Your task to perform on an android device: star an email in the gmail app Image 0: 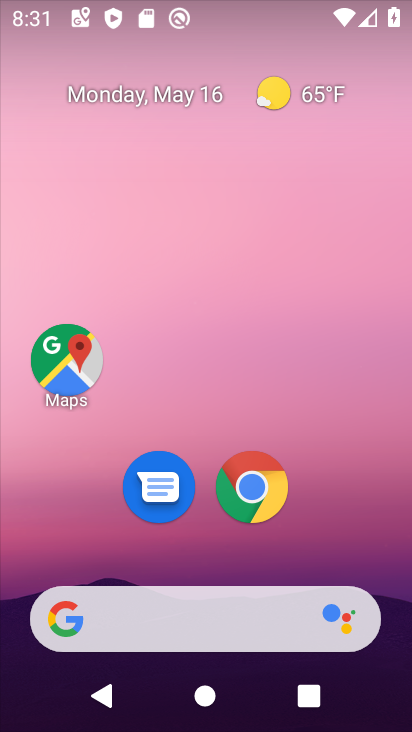
Step 0: drag from (356, 554) to (355, 130)
Your task to perform on an android device: star an email in the gmail app Image 1: 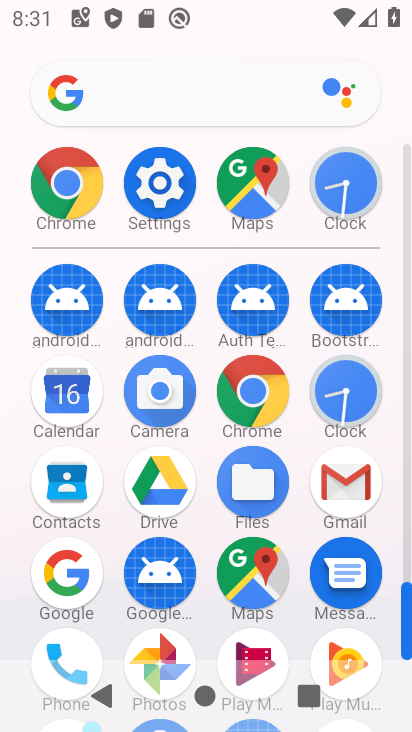
Step 1: click (361, 488)
Your task to perform on an android device: star an email in the gmail app Image 2: 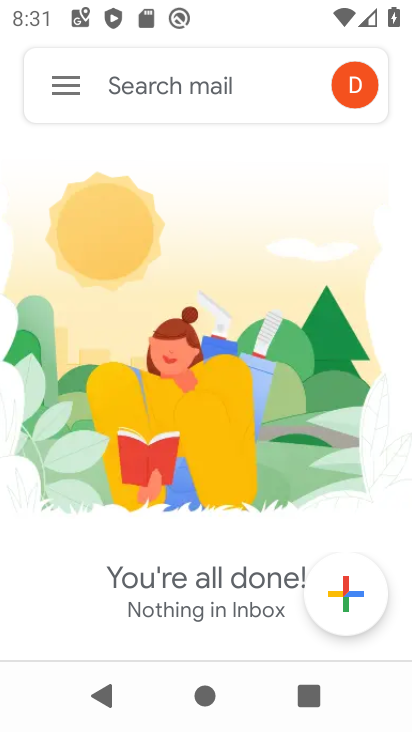
Step 2: click (45, 81)
Your task to perform on an android device: star an email in the gmail app Image 3: 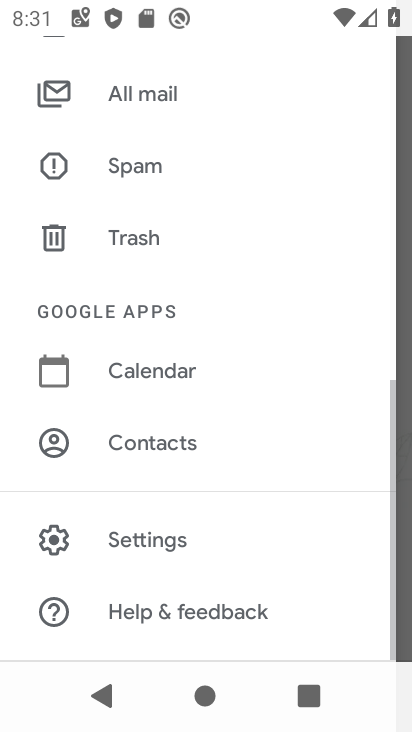
Step 3: drag from (268, 501) to (301, 327)
Your task to perform on an android device: star an email in the gmail app Image 4: 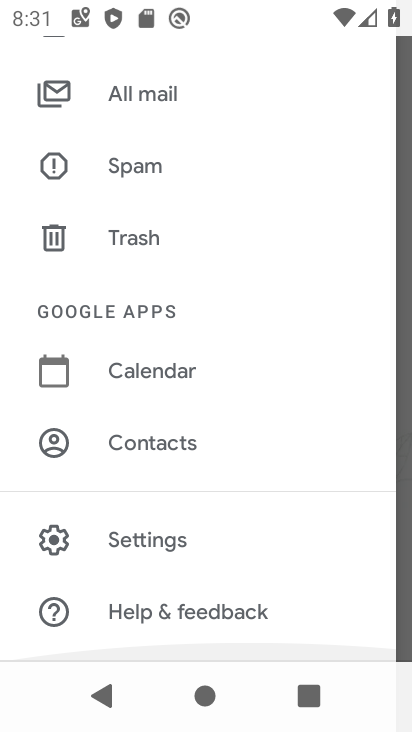
Step 4: drag from (312, 273) to (311, 409)
Your task to perform on an android device: star an email in the gmail app Image 5: 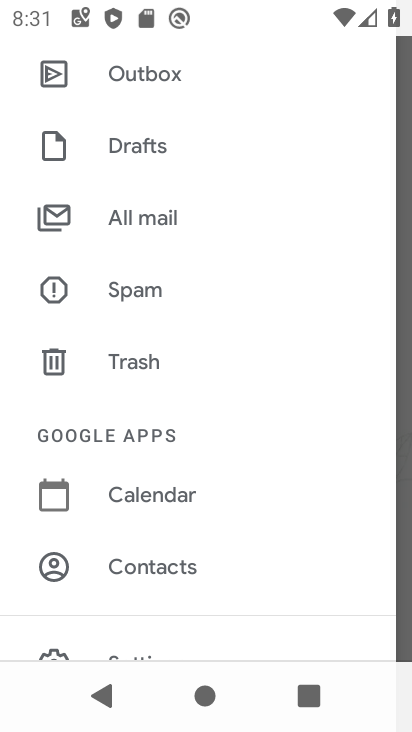
Step 5: drag from (315, 295) to (294, 457)
Your task to perform on an android device: star an email in the gmail app Image 6: 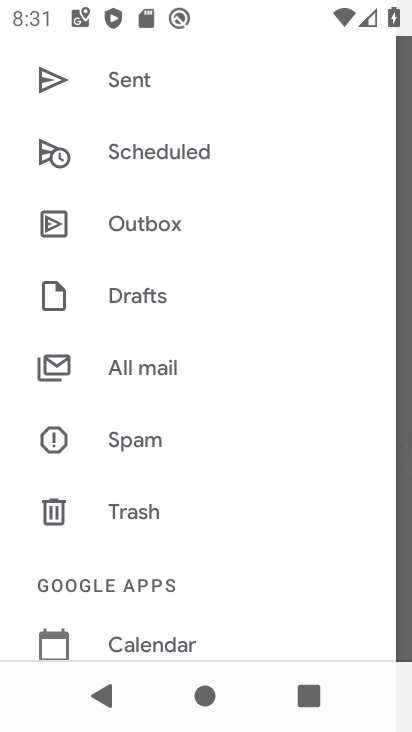
Step 6: drag from (285, 269) to (263, 402)
Your task to perform on an android device: star an email in the gmail app Image 7: 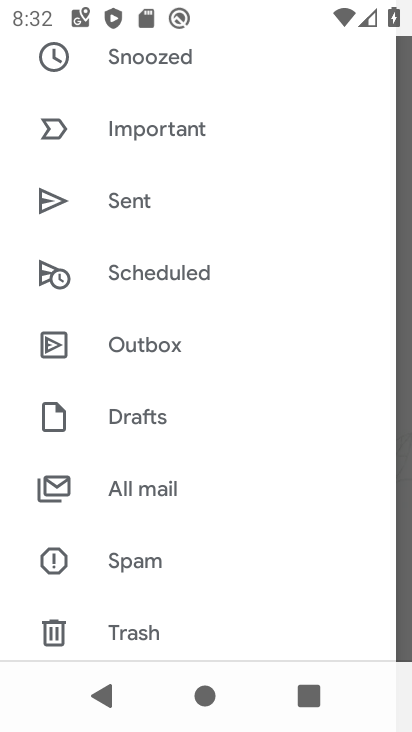
Step 7: drag from (265, 225) to (246, 361)
Your task to perform on an android device: star an email in the gmail app Image 8: 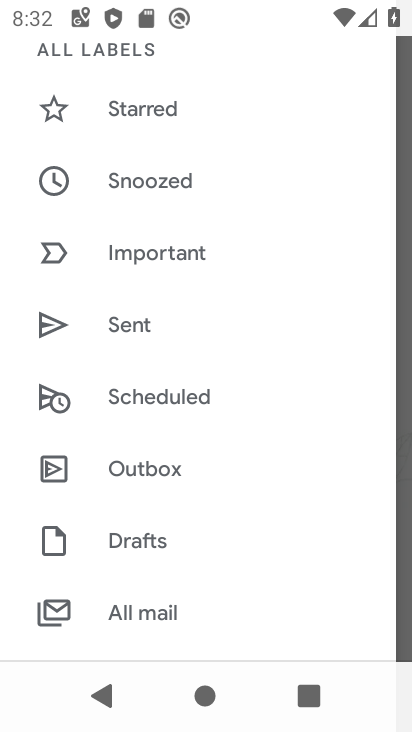
Step 8: drag from (273, 199) to (256, 353)
Your task to perform on an android device: star an email in the gmail app Image 9: 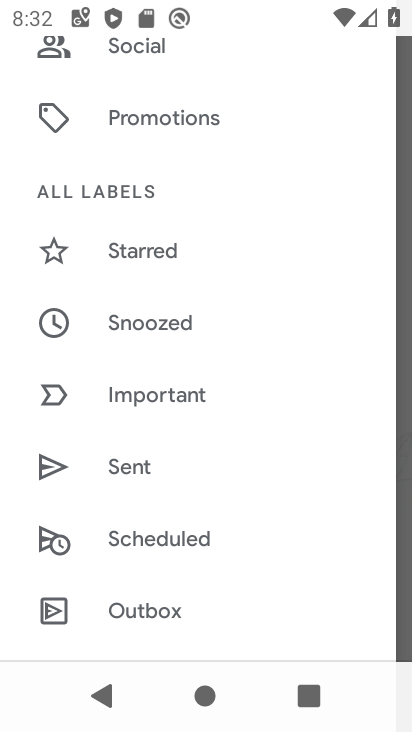
Step 9: drag from (266, 207) to (262, 325)
Your task to perform on an android device: star an email in the gmail app Image 10: 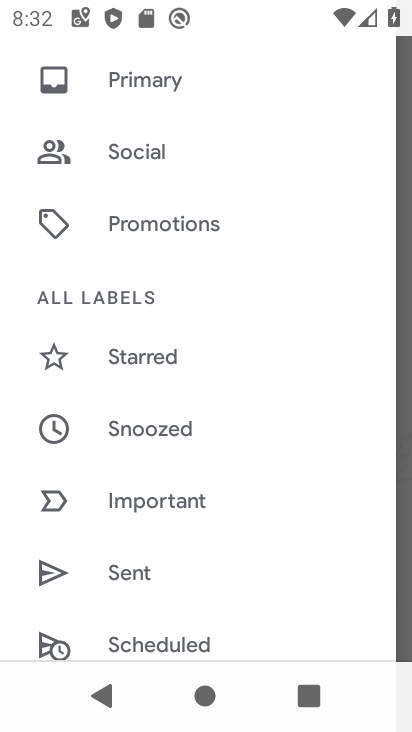
Step 10: drag from (333, 222) to (306, 457)
Your task to perform on an android device: star an email in the gmail app Image 11: 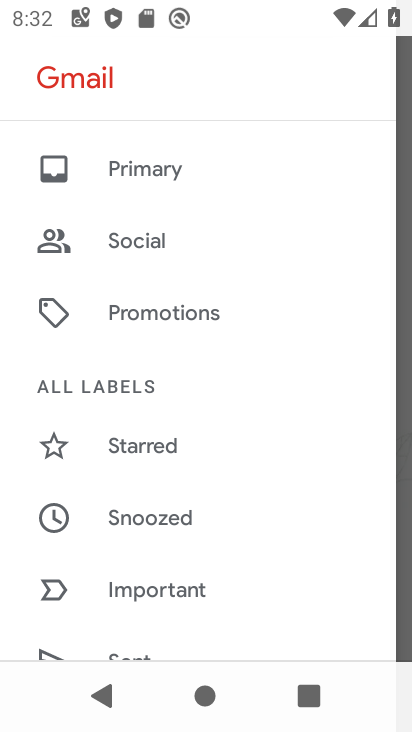
Step 11: drag from (300, 231) to (292, 455)
Your task to perform on an android device: star an email in the gmail app Image 12: 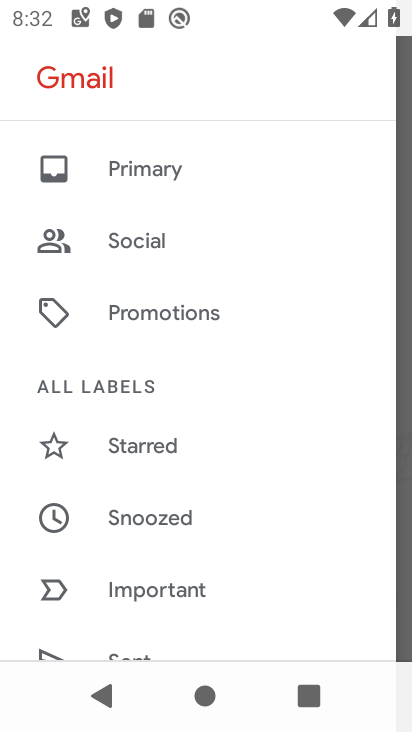
Step 12: click (143, 155)
Your task to perform on an android device: star an email in the gmail app Image 13: 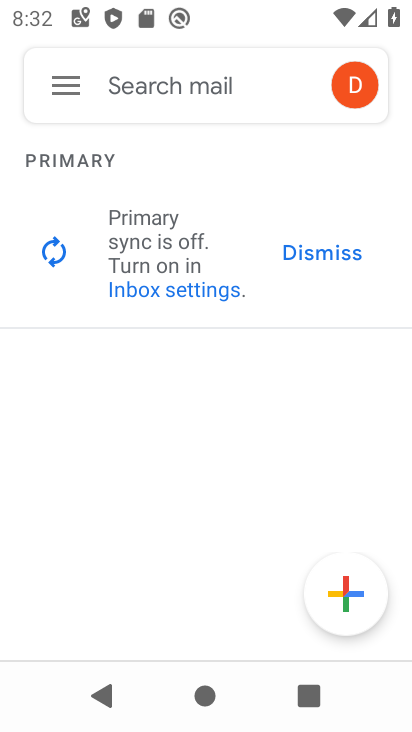
Step 13: task complete